Your task to perform on an android device: Turn on the flashlight Image 0: 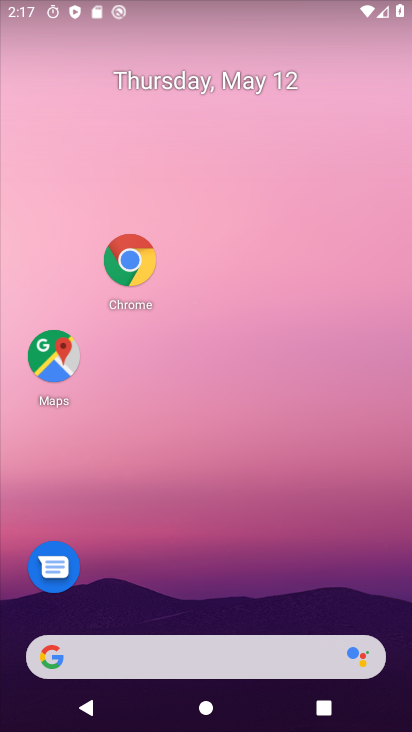
Step 0: drag from (216, 11) to (237, 386)
Your task to perform on an android device: Turn on the flashlight Image 1: 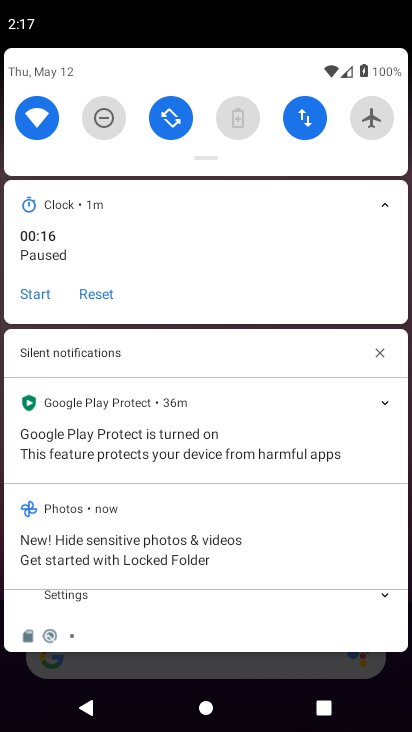
Step 1: drag from (232, 125) to (265, 453)
Your task to perform on an android device: Turn on the flashlight Image 2: 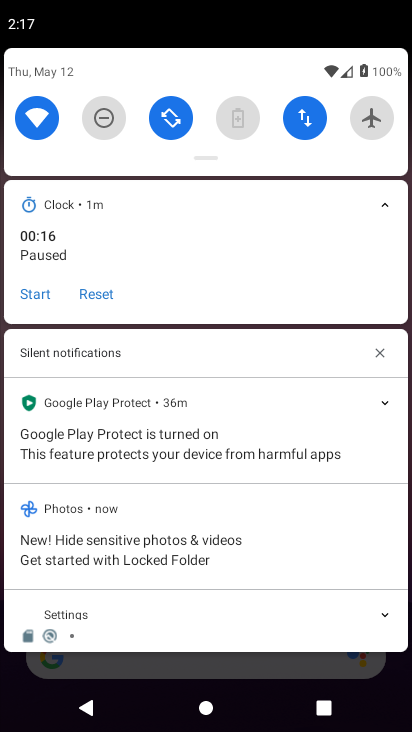
Step 2: drag from (206, 113) to (223, 500)
Your task to perform on an android device: Turn on the flashlight Image 3: 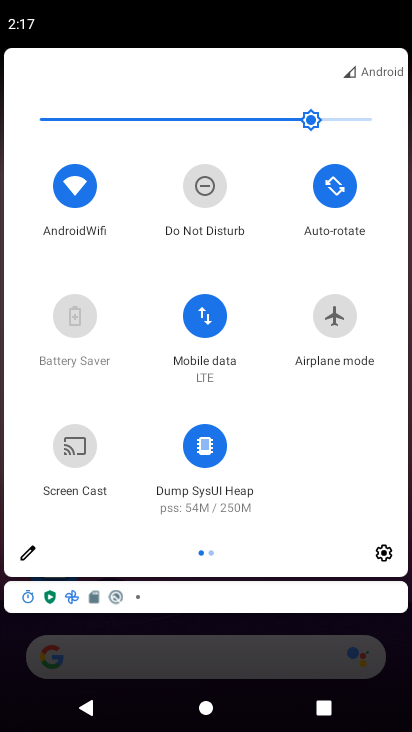
Step 3: drag from (333, 380) to (5, 379)
Your task to perform on an android device: Turn on the flashlight Image 4: 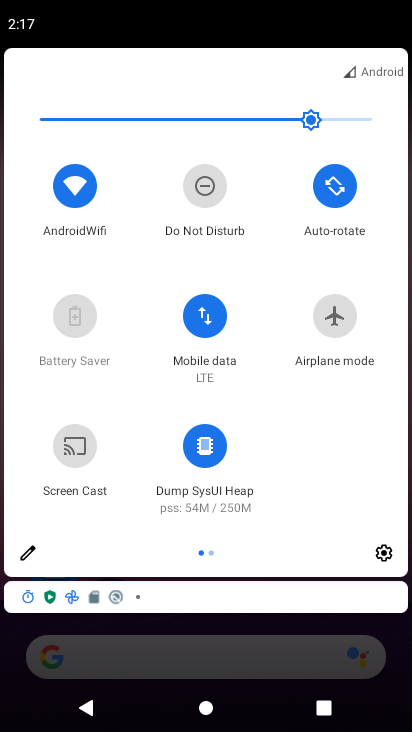
Step 4: drag from (308, 408) to (32, 391)
Your task to perform on an android device: Turn on the flashlight Image 5: 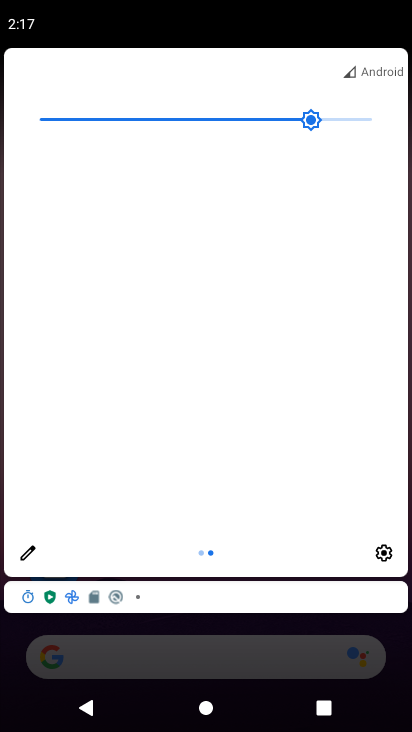
Step 5: click (22, 557)
Your task to perform on an android device: Turn on the flashlight Image 6: 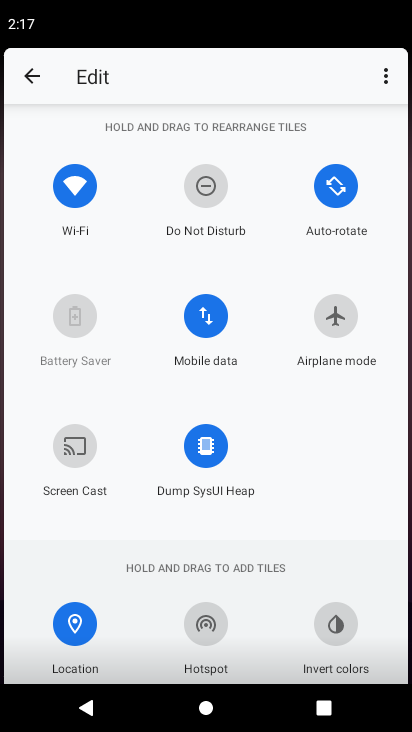
Step 6: task complete